Your task to perform on an android device: turn off priority inbox in the gmail app Image 0: 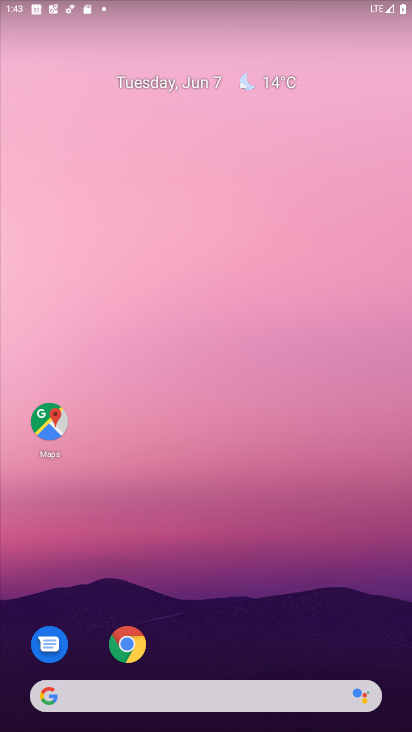
Step 0: drag from (278, 604) to (259, 9)
Your task to perform on an android device: turn off priority inbox in the gmail app Image 1: 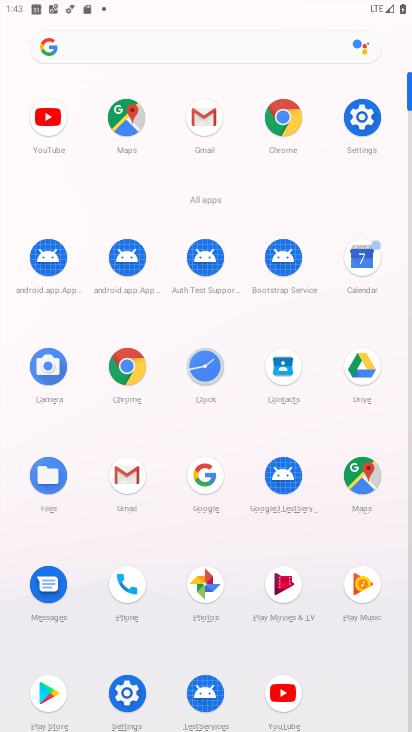
Step 1: click (209, 117)
Your task to perform on an android device: turn off priority inbox in the gmail app Image 2: 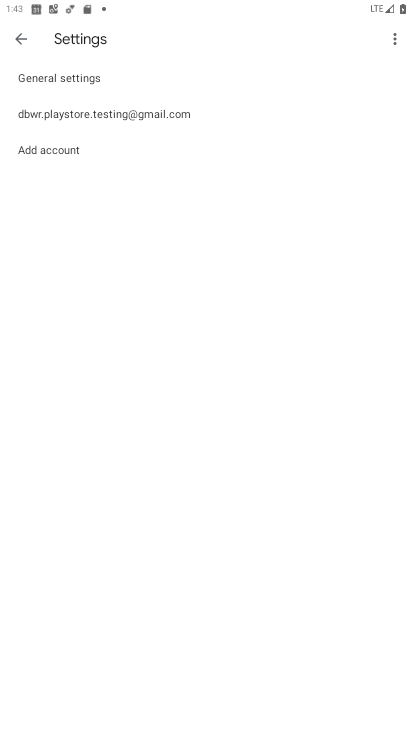
Step 2: click (108, 120)
Your task to perform on an android device: turn off priority inbox in the gmail app Image 3: 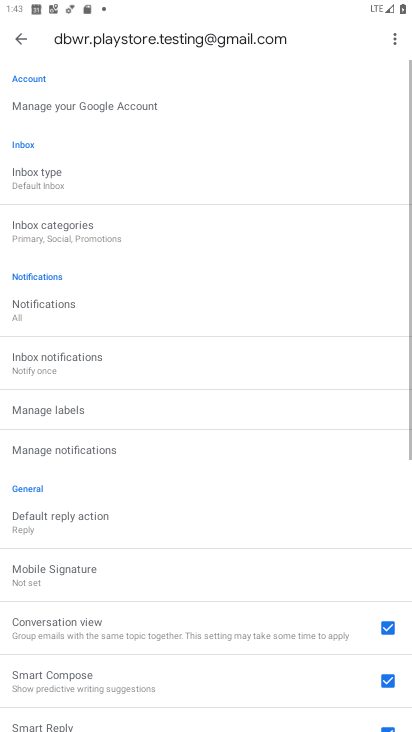
Step 3: click (55, 183)
Your task to perform on an android device: turn off priority inbox in the gmail app Image 4: 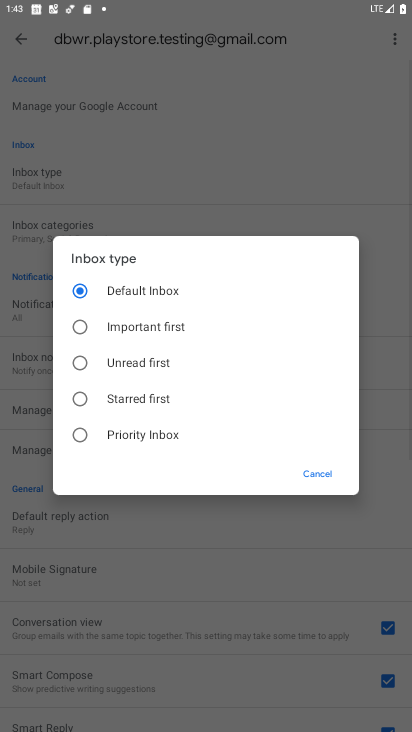
Step 4: click (148, 285)
Your task to perform on an android device: turn off priority inbox in the gmail app Image 5: 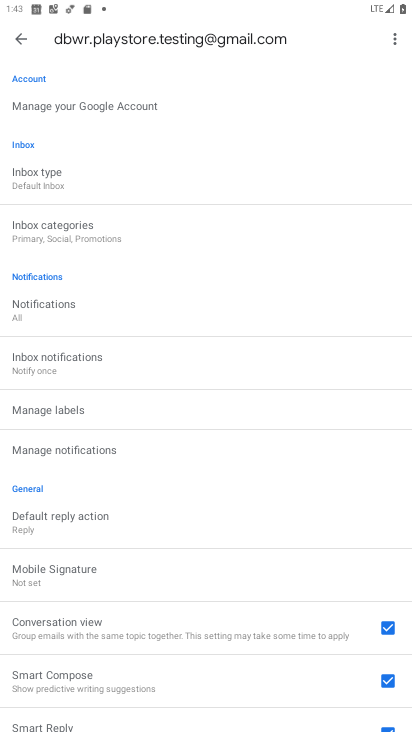
Step 5: task complete